Your task to perform on an android device: refresh tabs in the chrome app Image 0: 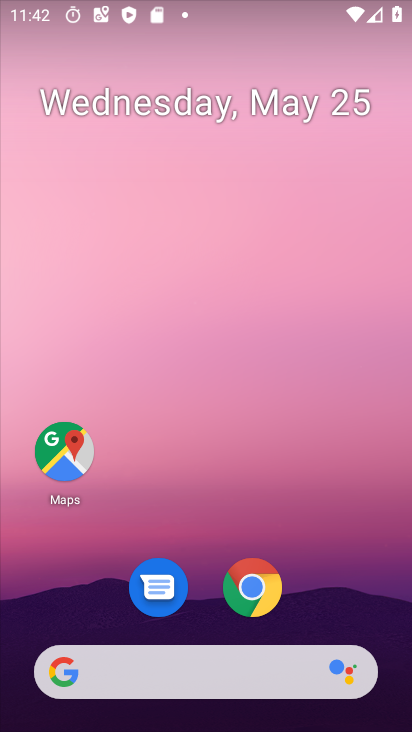
Step 0: drag from (253, 684) to (249, 0)
Your task to perform on an android device: refresh tabs in the chrome app Image 1: 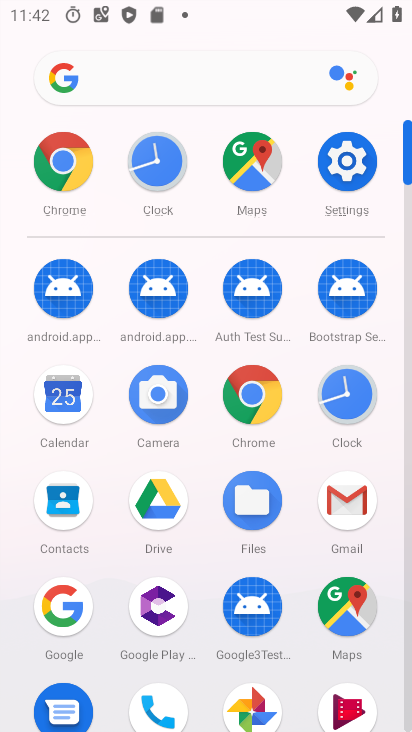
Step 1: click (52, 162)
Your task to perform on an android device: refresh tabs in the chrome app Image 2: 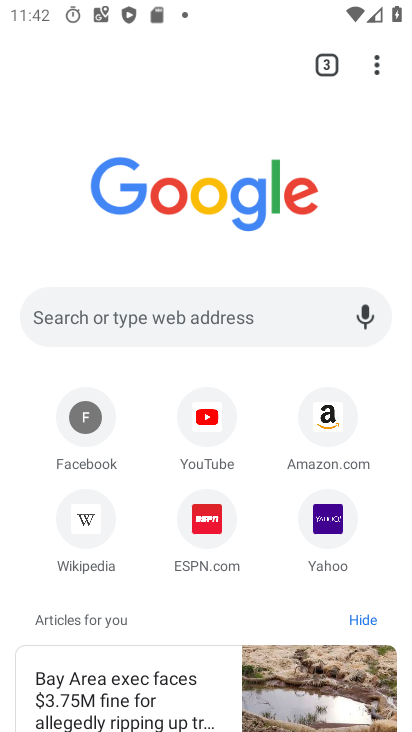
Step 2: click (382, 76)
Your task to perform on an android device: refresh tabs in the chrome app Image 3: 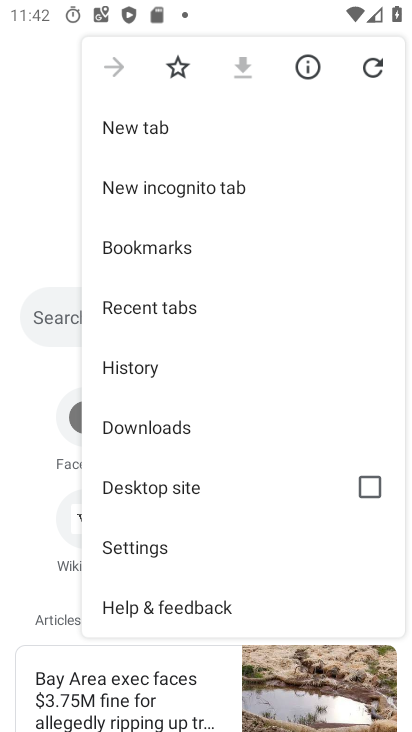
Step 3: click (370, 69)
Your task to perform on an android device: refresh tabs in the chrome app Image 4: 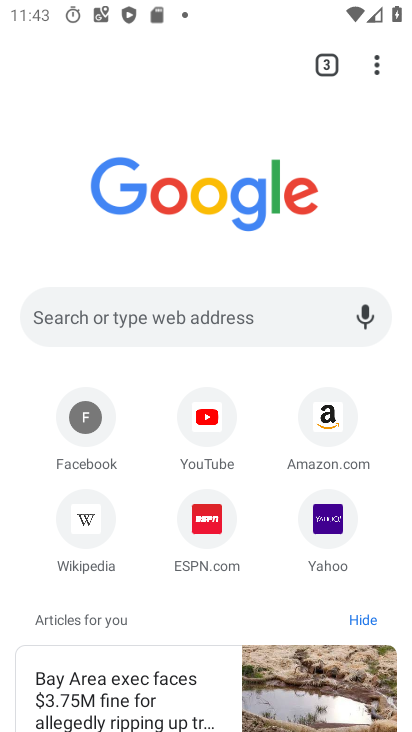
Step 4: task complete